Your task to perform on an android device: toggle notifications settings in the gmail app Image 0: 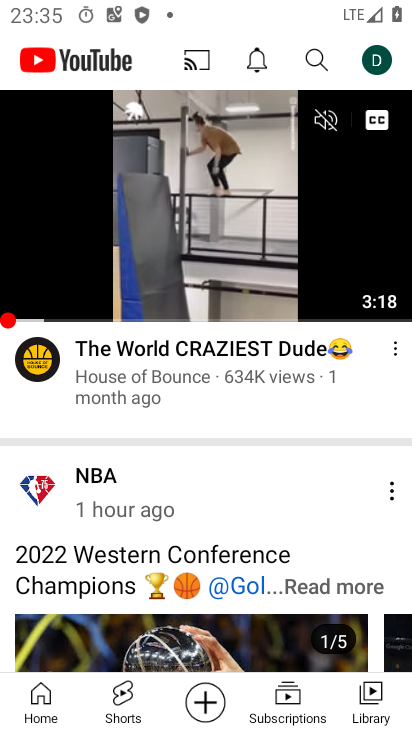
Step 0: press home button
Your task to perform on an android device: toggle notifications settings in the gmail app Image 1: 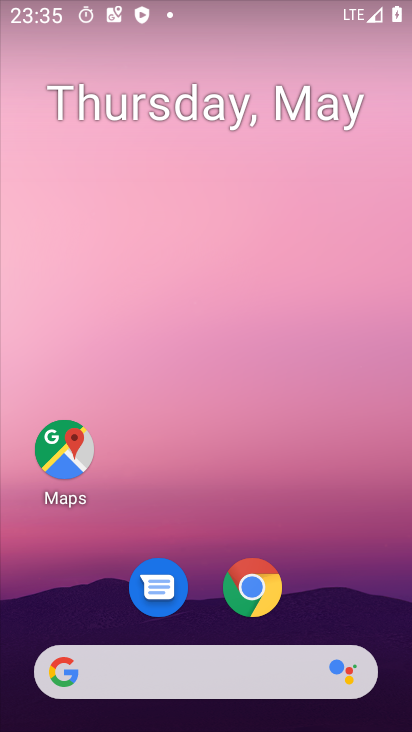
Step 1: drag from (334, 627) to (321, 7)
Your task to perform on an android device: toggle notifications settings in the gmail app Image 2: 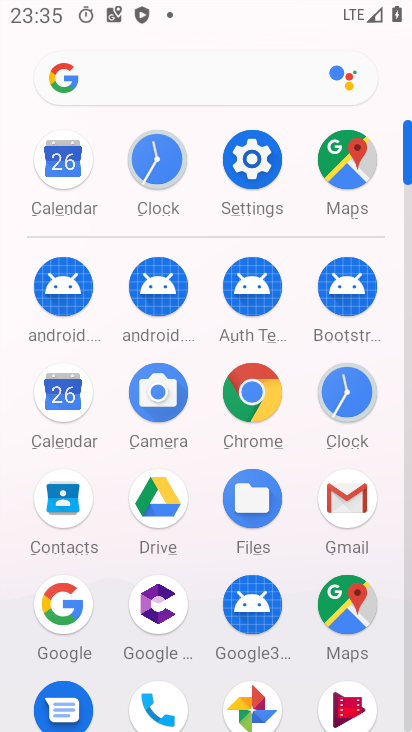
Step 2: click (348, 499)
Your task to perform on an android device: toggle notifications settings in the gmail app Image 3: 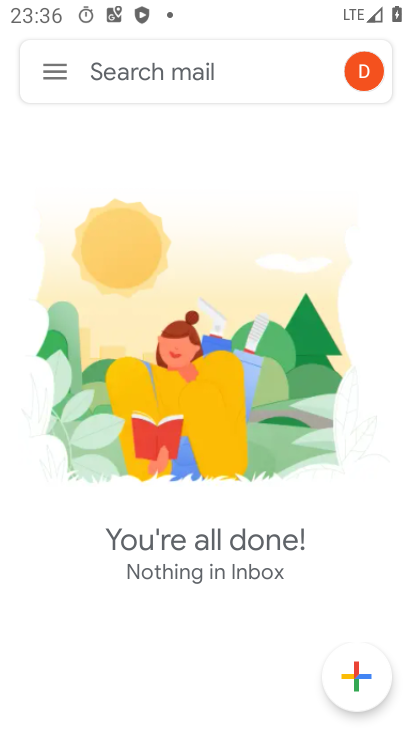
Step 3: click (52, 74)
Your task to perform on an android device: toggle notifications settings in the gmail app Image 4: 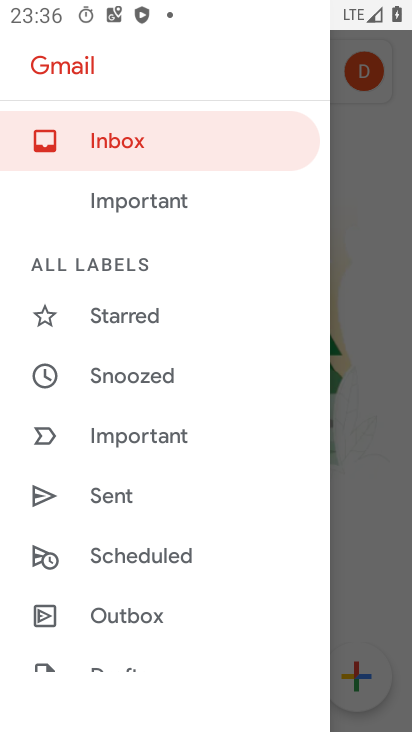
Step 4: drag from (218, 546) to (197, 305)
Your task to perform on an android device: toggle notifications settings in the gmail app Image 5: 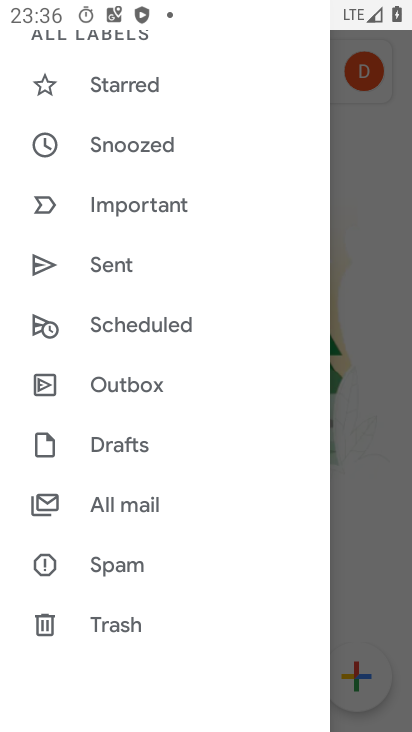
Step 5: drag from (169, 528) to (99, 51)
Your task to perform on an android device: toggle notifications settings in the gmail app Image 6: 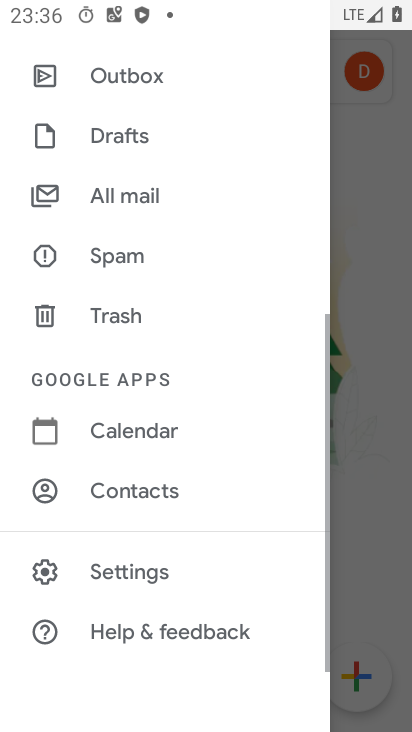
Step 6: click (110, 577)
Your task to perform on an android device: toggle notifications settings in the gmail app Image 7: 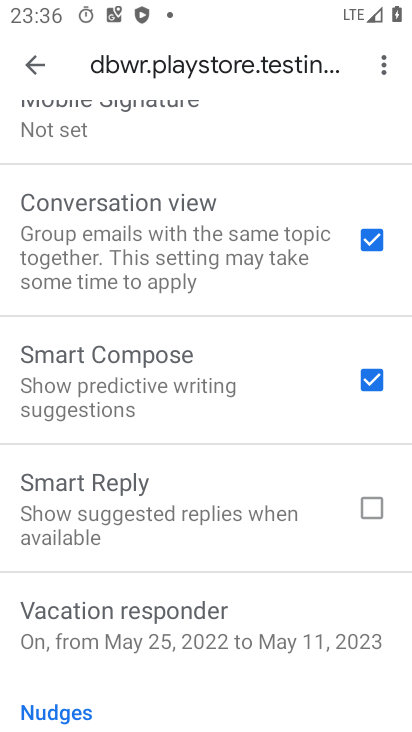
Step 7: click (29, 64)
Your task to perform on an android device: toggle notifications settings in the gmail app Image 8: 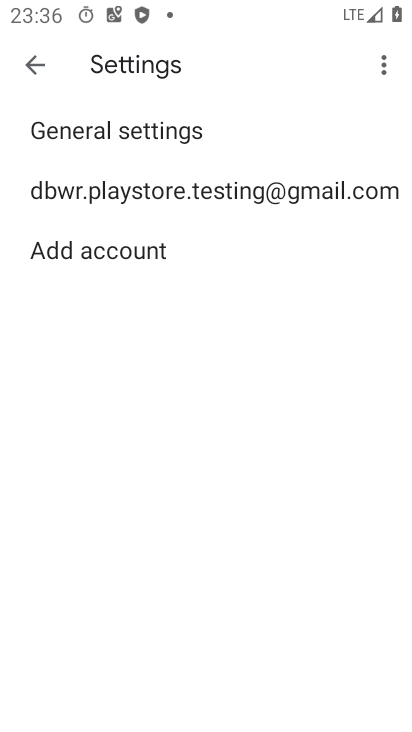
Step 8: click (79, 127)
Your task to perform on an android device: toggle notifications settings in the gmail app Image 9: 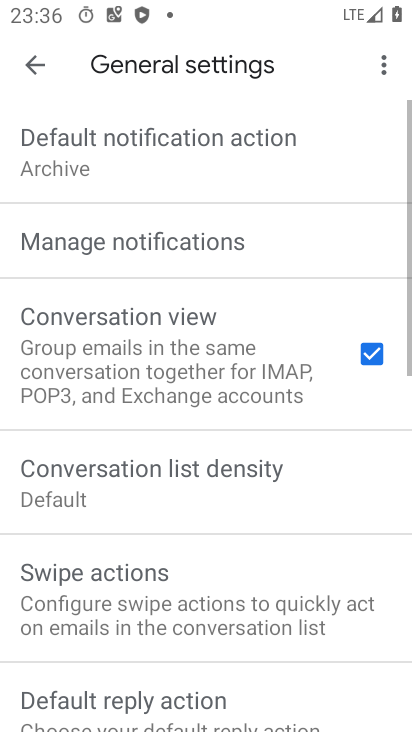
Step 9: click (109, 249)
Your task to perform on an android device: toggle notifications settings in the gmail app Image 10: 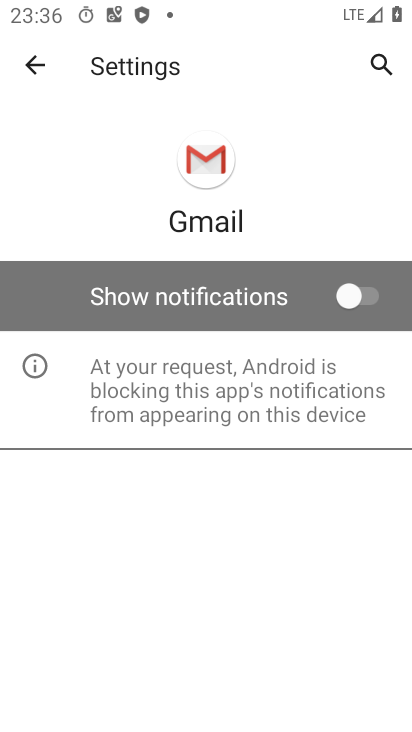
Step 10: click (362, 304)
Your task to perform on an android device: toggle notifications settings in the gmail app Image 11: 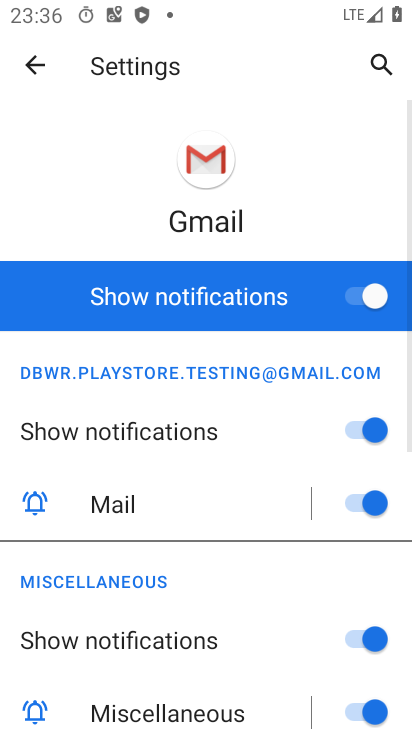
Step 11: task complete